Your task to perform on an android device: When is my next appointment? Image 0: 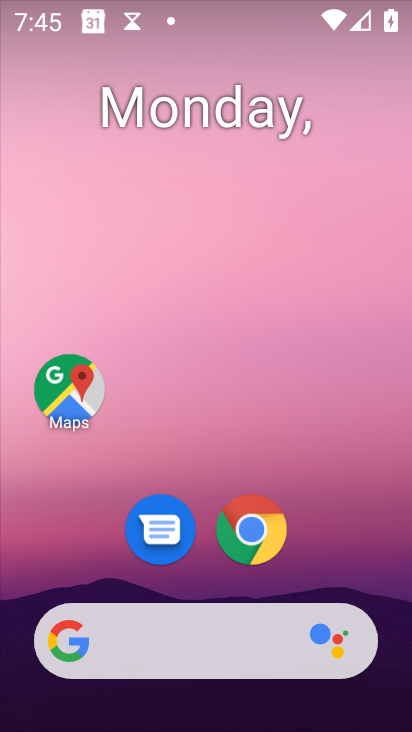
Step 0: drag from (77, 579) to (341, 101)
Your task to perform on an android device: When is my next appointment? Image 1: 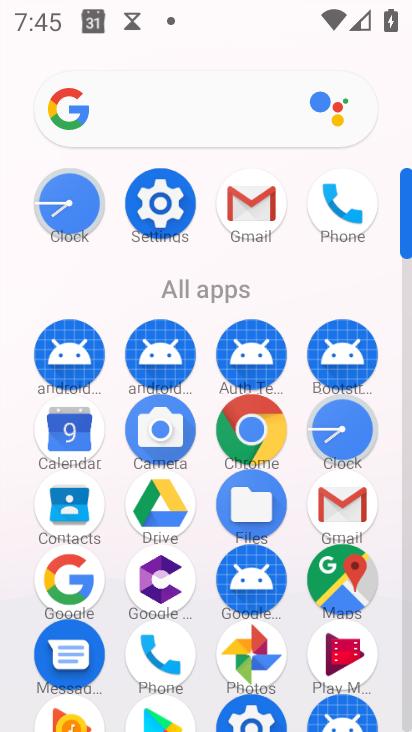
Step 1: click (62, 441)
Your task to perform on an android device: When is my next appointment? Image 2: 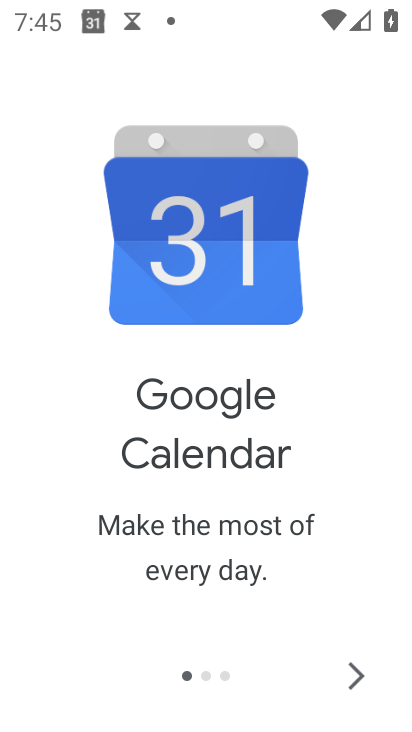
Step 2: click (354, 677)
Your task to perform on an android device: When is my next appointment? Image 3: 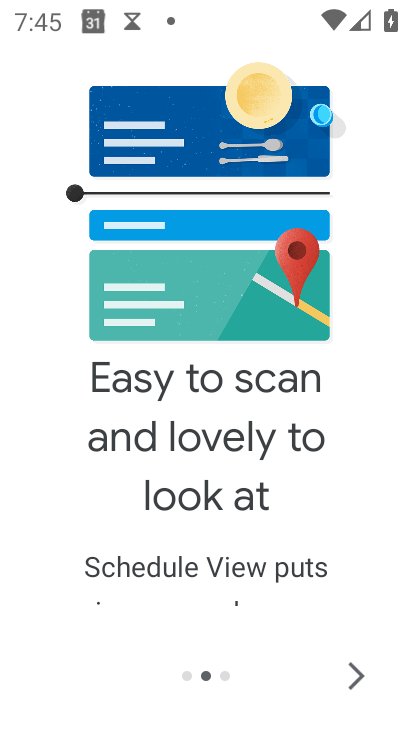
Step 3: click (354, 677)
Your task to perform on an android device: When is my next appointment? Image 4: 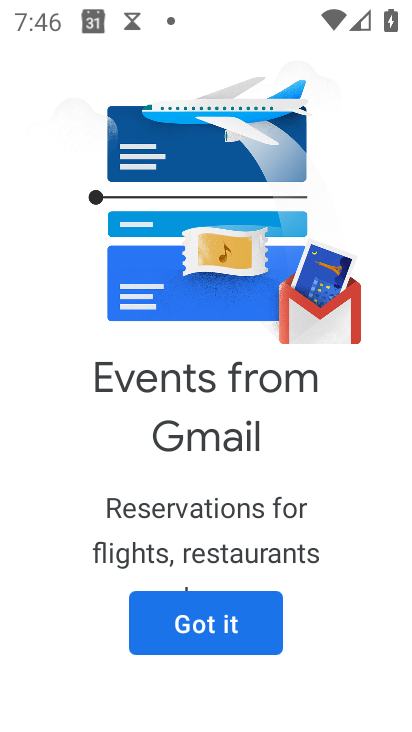
Step 4: click (198, 632)
Your task to perform on an android device: When is my next appointment? Image 5: 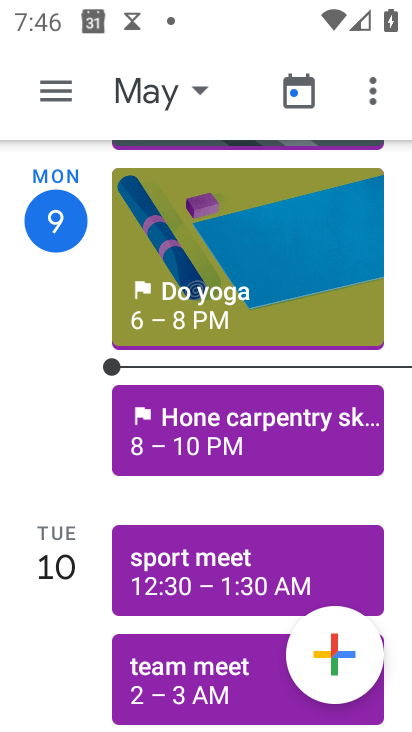
Step 5: task complete